Your task to perform on an android device: install app "Cash App" Image 0: 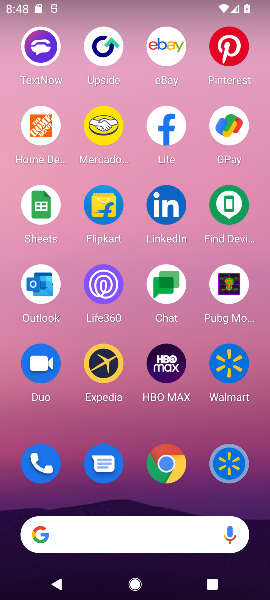
Step 0: drag from (121, 455) to (87, 23)
Your task to perform on an android device: install app "Cash App" Image 1: 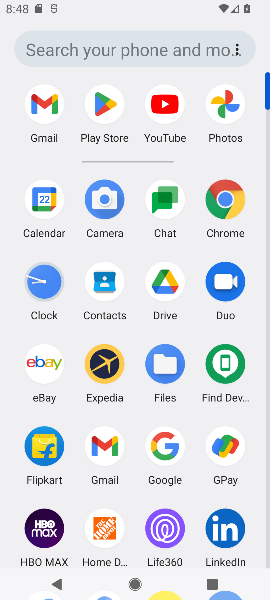
Step 1: click (101, 99)
Your task to perform on an android device: install app "Cash App" Image 2: 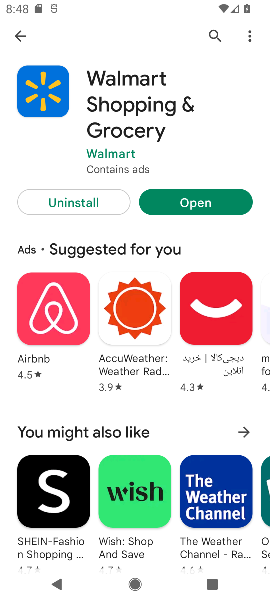
Step 2: click (19, 39)
Your task to perform on an android device: install app "Cash App" Image 3: 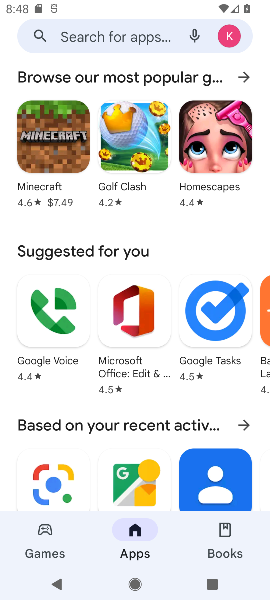
Step 3: click (107, 34)
Your task to perform on an android device: install app "Cash App" Image 4: 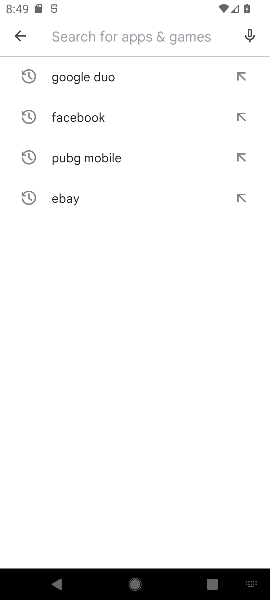
Step 4: type "Cash App"
Your task to perform on an android device: install app "Cash App" Image 5: 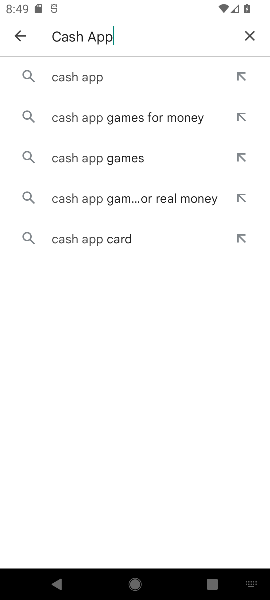
Step 5: click (93, 78)
Your task to perform on an android device: install app "Cash App" Image 6: 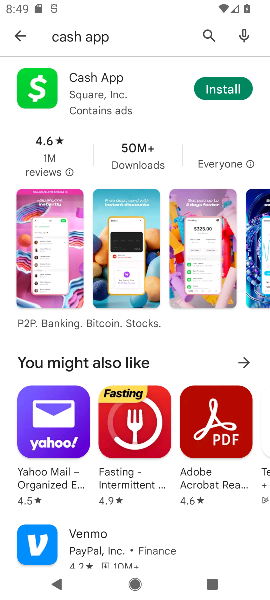
Step 6: click (237, 85)
Your task to perform on an android device: install app "Cash App" Image 7: 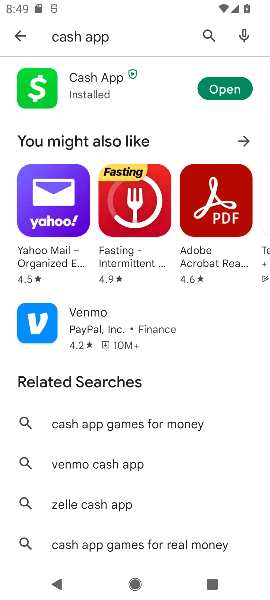
Step 7: click (224, 91)
Your task to perform on an android device: install app "Cash App" Image 8: 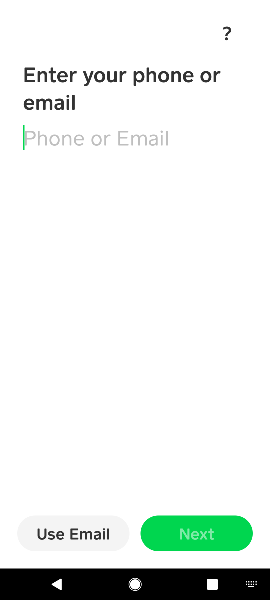
Step 8: task complete